Your task to perform on an android device: find photos in the google photos app Image 0: 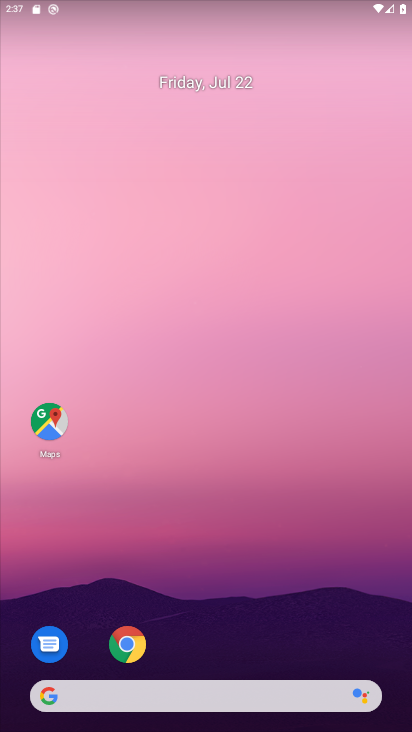
Step 0: drag from (212, 656) to (219, 259)
Your task to perform on an android device: find photos in the google photos app Image 1: 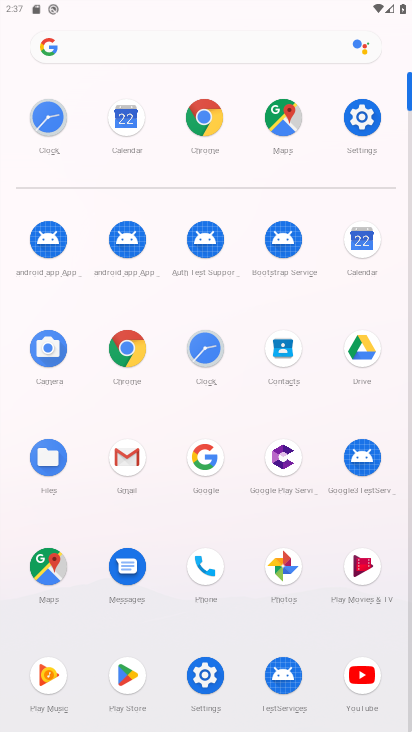
Step 1: click (274, 557)
Your task to perform on an android device: find photos in the google photos app Image 2: 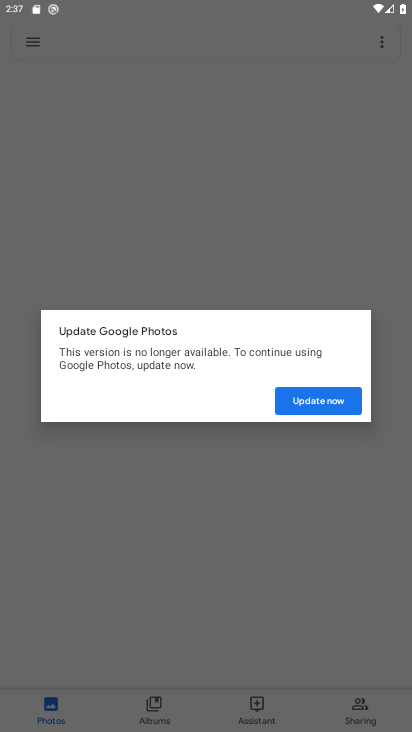
Step 2: click (329, 392)
Your task to perform on an android device: find photos in the google photos app Image 3: 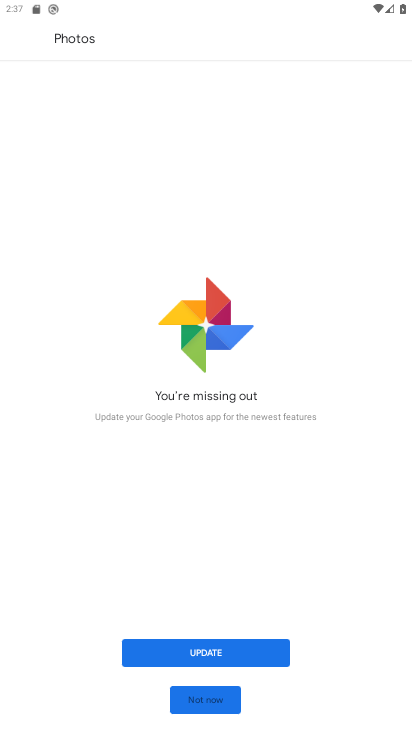
Step 3: click (205, 709)
Your task to perform on an android device: find photos in the google photos app Image 4: 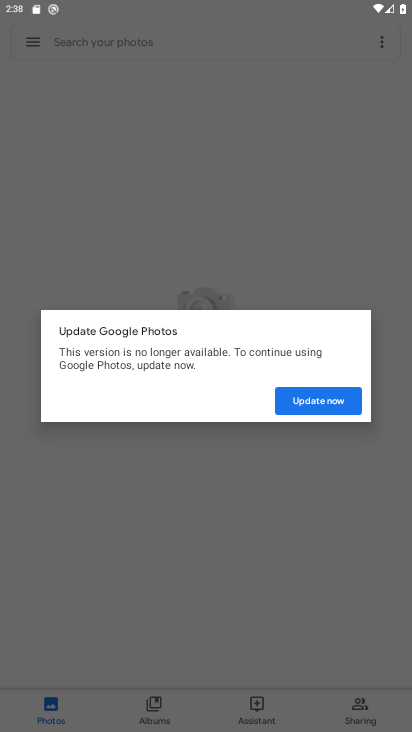
Step 4: task complete